Your task to perform on an android device: check out phone information Image 0: 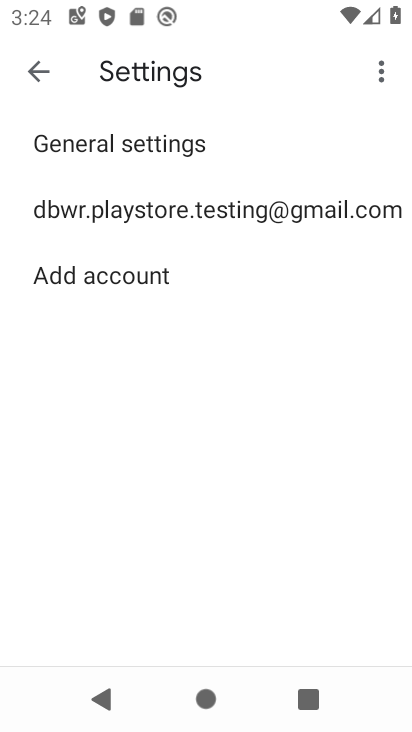
Step 0: press home button
Your task to perform on an android device: check out phone information Image 1: 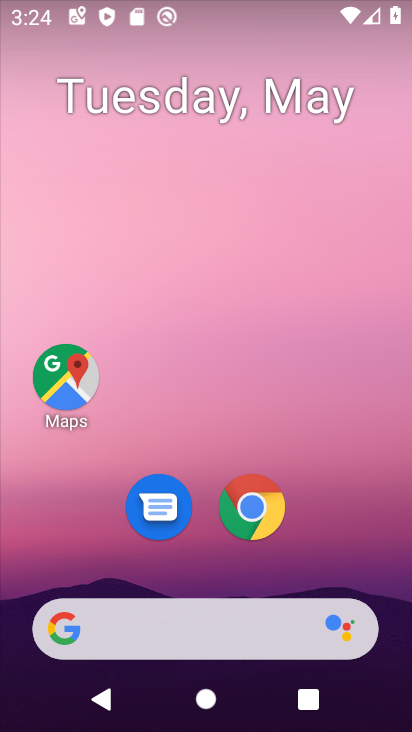
Step 1: drag from (212, 567) to (232, 26)
Your task to perform on an android device: check out phone information Image 2: 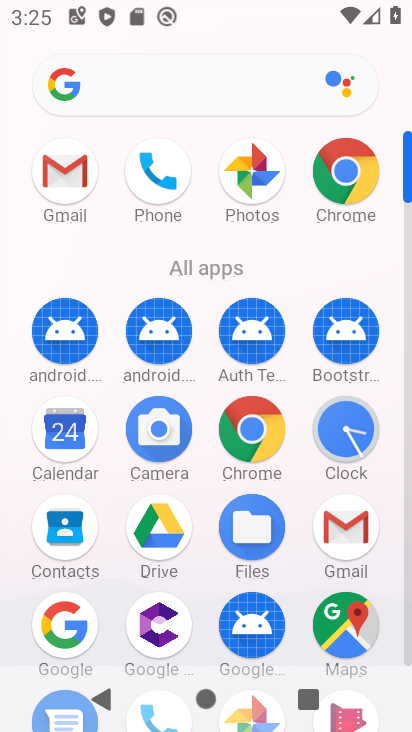
Step 2: drag from (309, 556) to (313, 162)
Your task to perform on an android device: check out phone information Image 3: 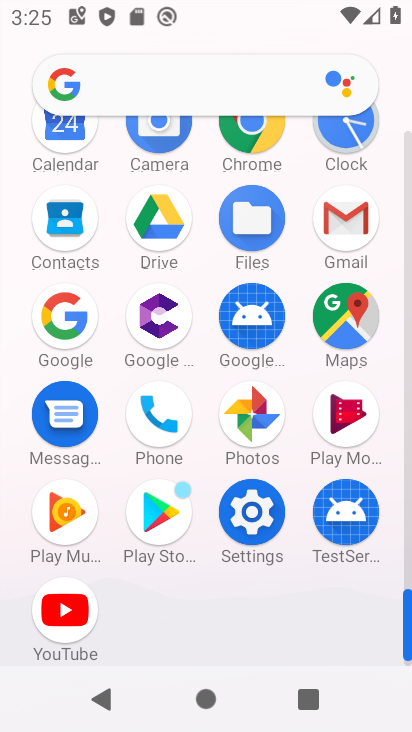
Step 3: click (252, 511)
Your task to perform on an android device: check out phone information Image 4: 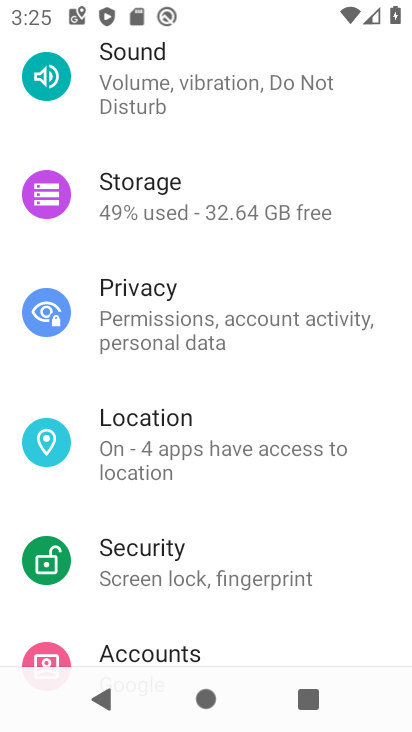
Step 4: drag from (226, 597) to (267, 169)
Your task to perform on an android device: check out phone information Image 5: 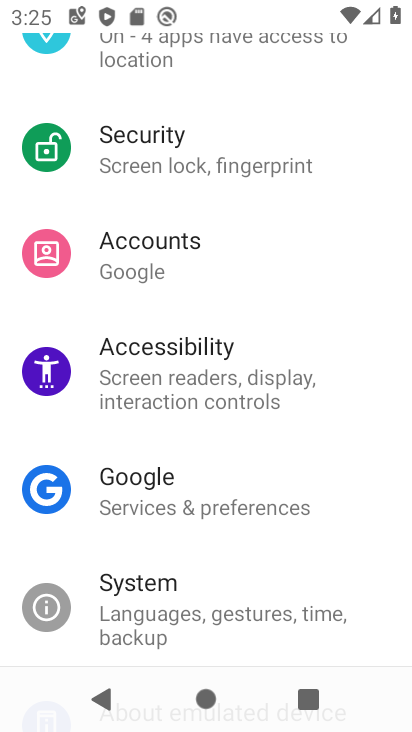
Step 5: drag from (245, 608) to (268, 259)
Your task to perform on an android device: check out phone information Image 6: 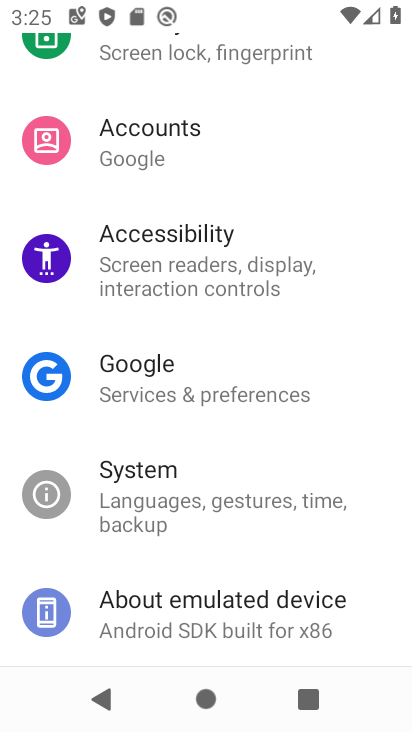
Step 6: click (207, 613)
Your task to perform on an android device: check out phone information Image 7: 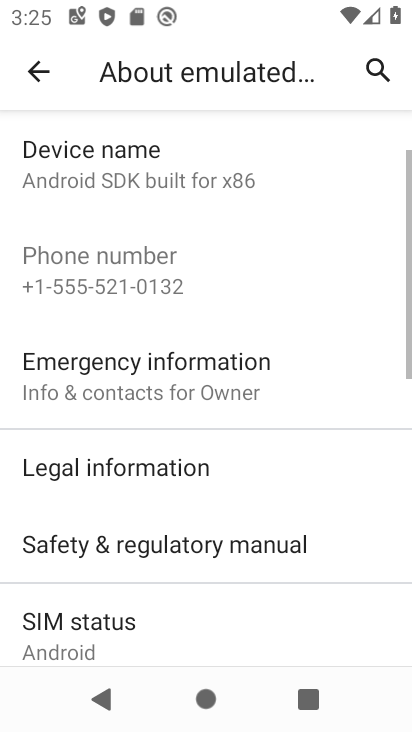
Step 7: task complete